Your task to perform on an android device: Do I have any events tomorrow? Image 0: 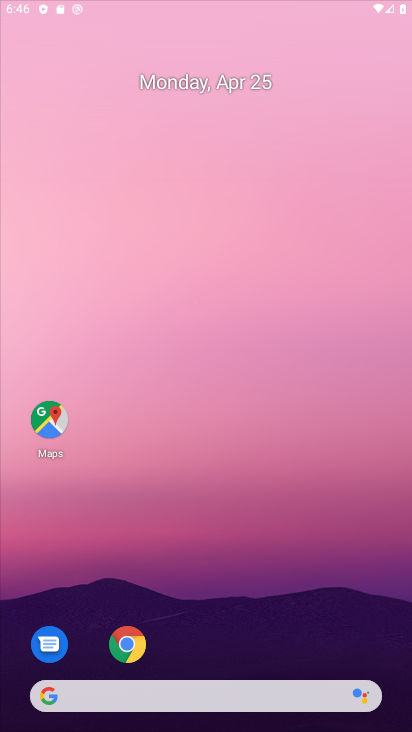
Step 0: drag from (284, 592) to (313, 72)
Your task to perform on an android device: Do I have any events tomorrow? Image 1: 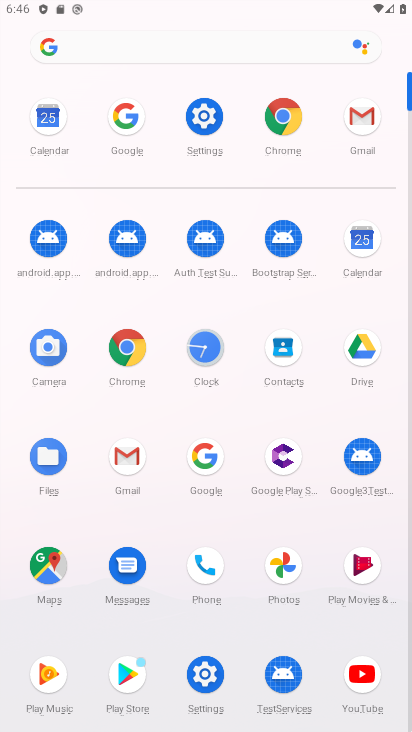
Step 1: click (47, 121)
Your task to perform on an android device: Do I have any events tomorrow? Image 2: 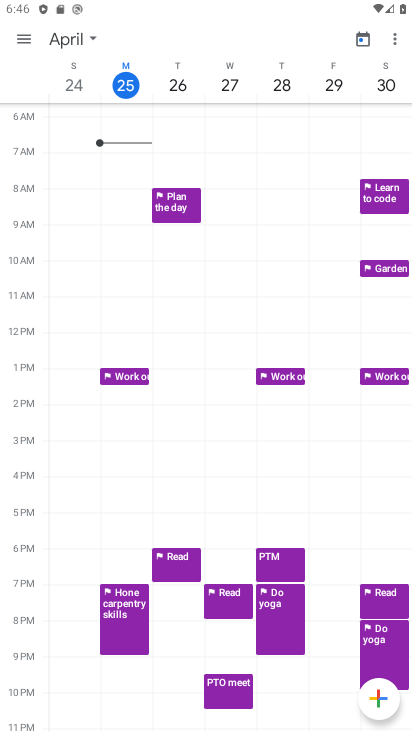
Step 2: click (23, 34)
Your task to perform on an android device: Do I have any events tomorrow? Image 3: 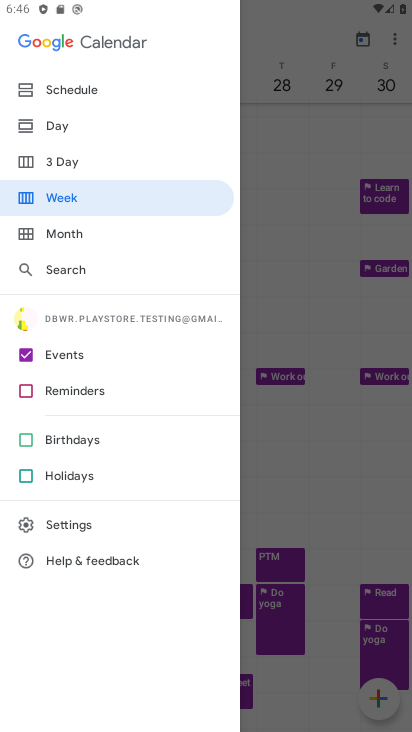
Step 3: click (67, 125)
Your task to perform on an android device: Do I have any events tomorrow? Image 4: 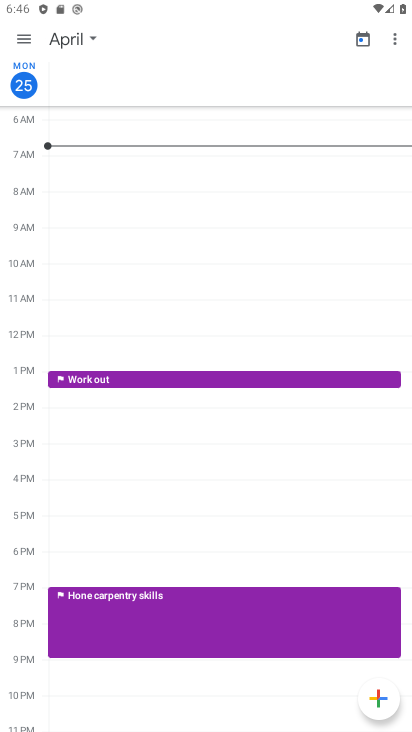
Step 4: click (78, 41)
Your task to perform on an android device: Do I have any events tomorrow? Image 5: 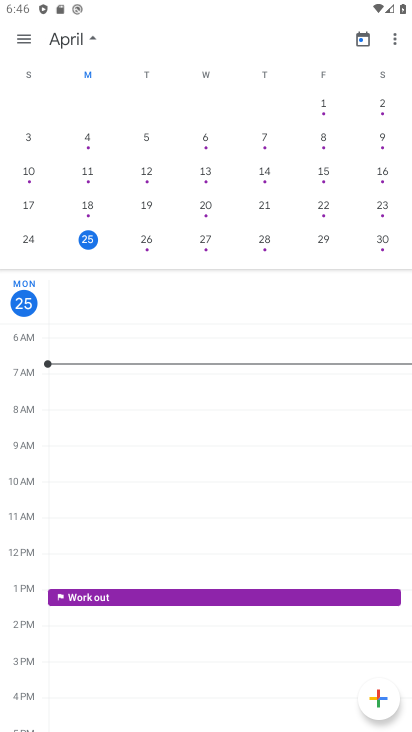
Step 5: click (150, 237)
Your task to perform on an android device: Do I have any events tomorrow? Image 6: 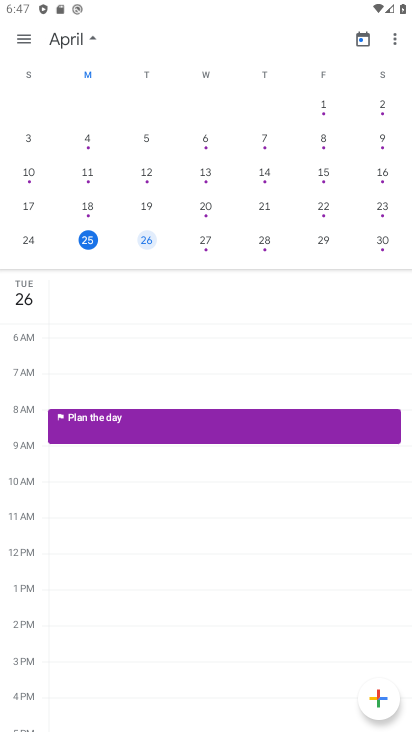
Step 6: task complete